Your task to perform on an android device: Is it going to rain tomorrow? Image 0: 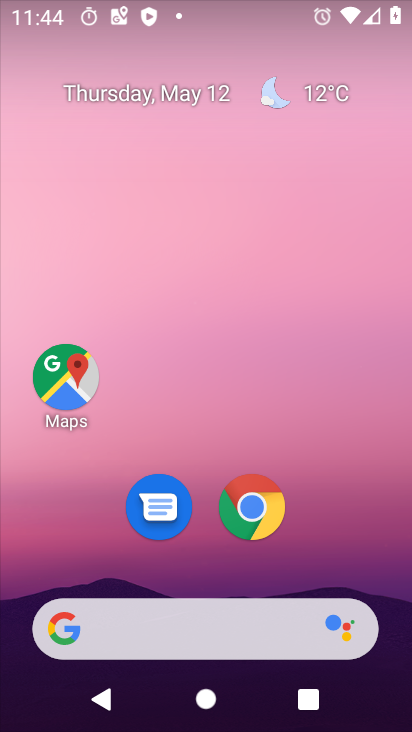
Step 0: click (307, 96)
Your task to perform on an android device: Is it going to rain tomorrow? Image 1: 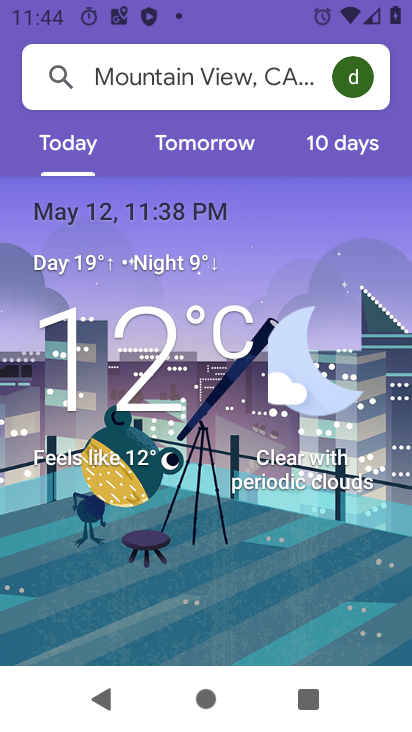
Step 1: click (200, 158)
Your task to perform on an android device: Is it going to rain tomorrow? Image 2: 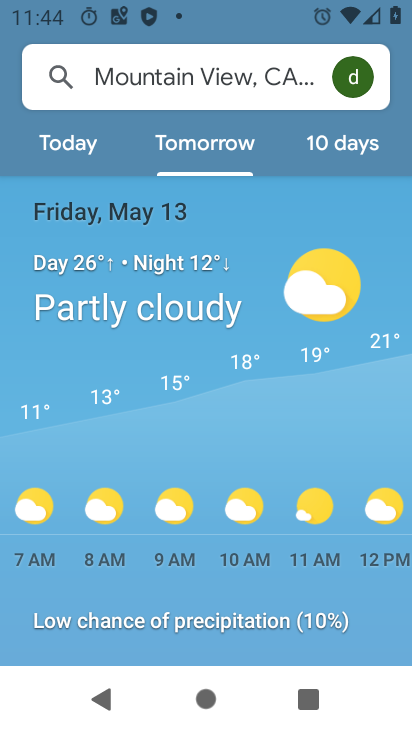
Step 2: task complete